Your task to perform on an android device: Open Youtube and go to "Your channel" Image 0: 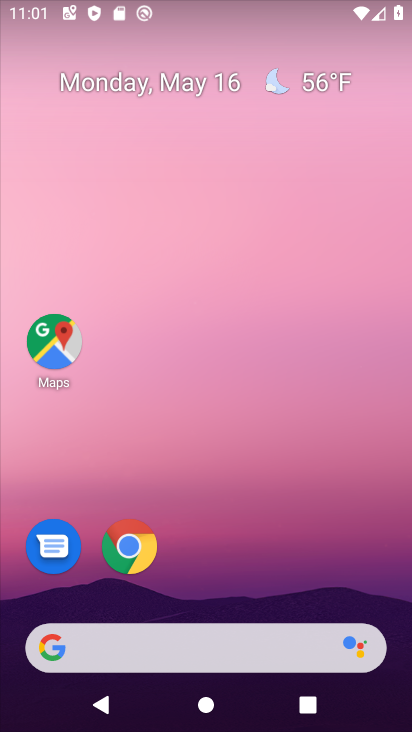
Step 0: drag from (298, 502) to (302, 13)
Your task to perform on an android device: Open Youtube and go to "Your channel" Image 1: 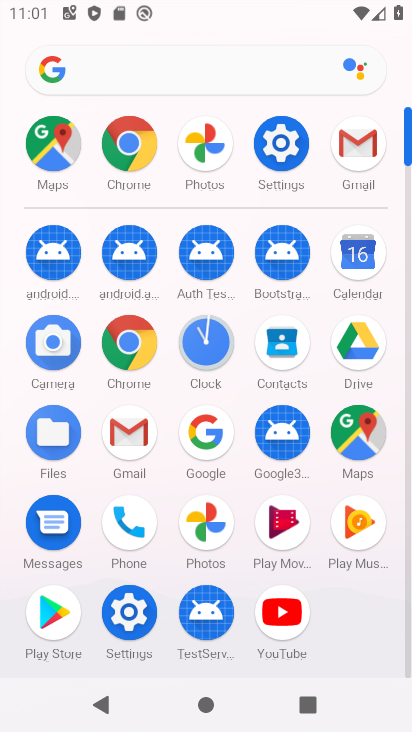
Step 1: click (286, 603)
Your task to perform on an android device: Open Youtube and go to "Your channel" Image 2: 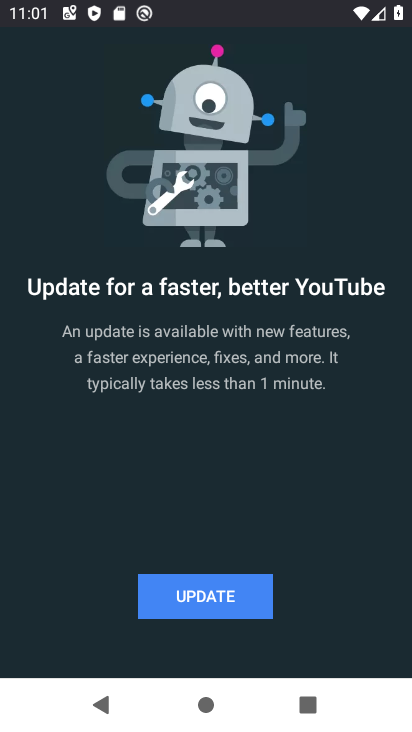
Step 2: click (205, 617)
Your task to perform on an android device: Open Youtube and go to "Your channel" Image 3: 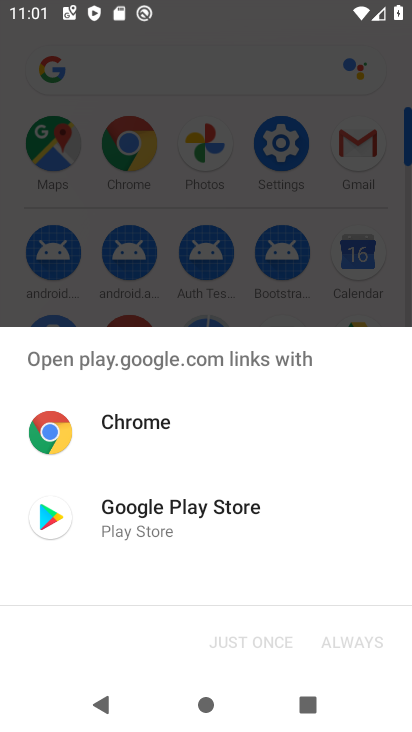
Step 3: click (138, 542)
Your task to perform on an android device: Open Youtube and go to "Your channel" Image 4: 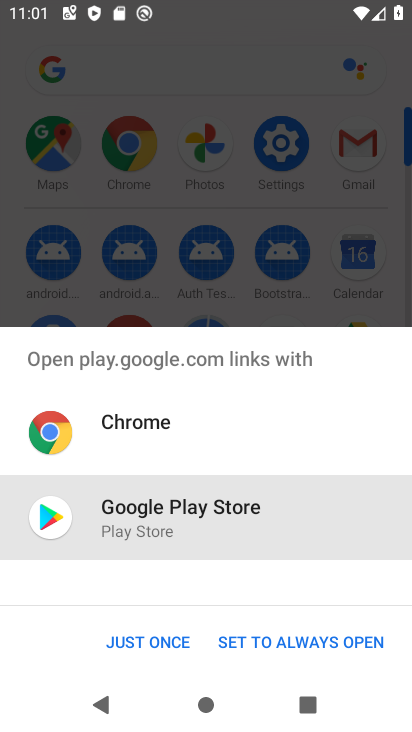
Step 4: click (171, 632)
Your task to perform on an android device: Open Youtube and go to "Your channel" Image 5: 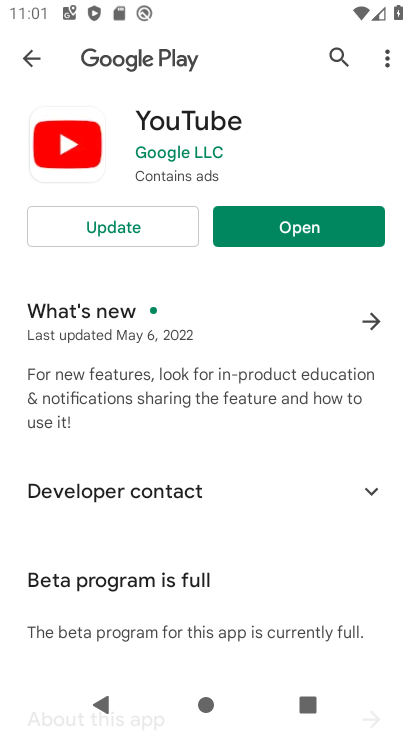
Step 5: click (167, 234)
Your task to perform on an android device: Open Youtube and go to "Your channel" Image 6: 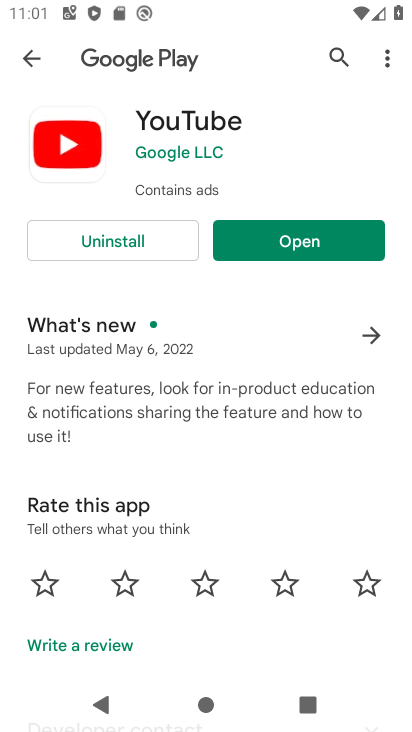
Step 6: click (316, 233)
Your task to perform on an android device: Open Youtube and go to "Your channel" Image 7: 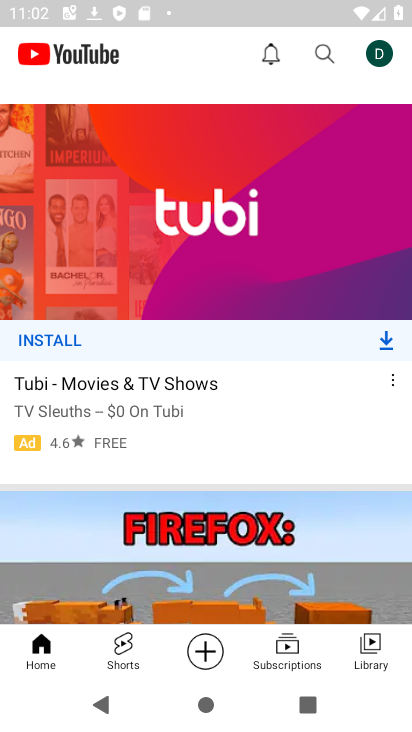
Step 7: click (375, 46)
Your task to perform on an android device: Open Youtube and go to "Your channel" Image 8: 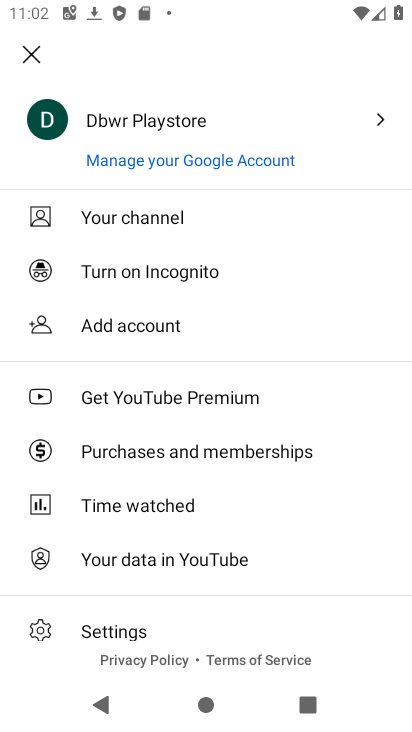
Step 8: click (115, 212)
Your task to perform on an android device: Open Youtube and go to "Your channel" Image 9: 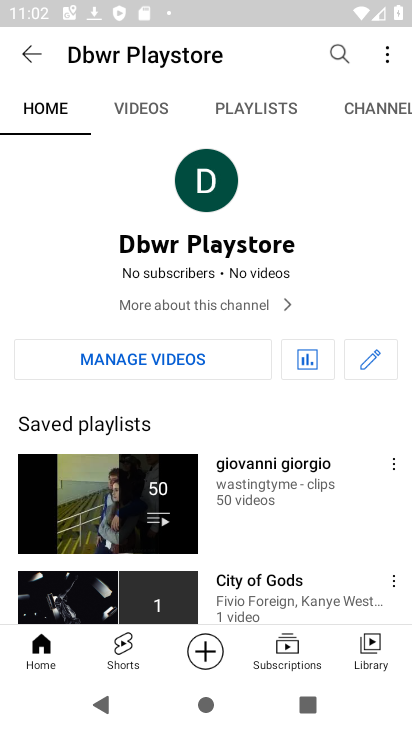
Step 9: task complete